Your task to perform on an android device: change timer sound Image 0: 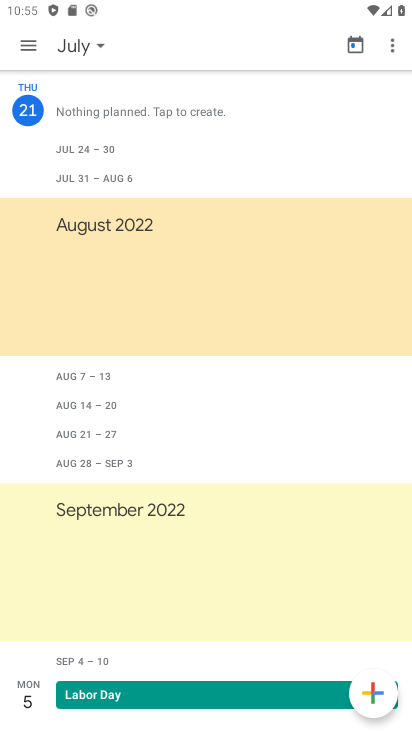
Step 0: press home button
Your task to perform on an android device: change timer sound Image 1: 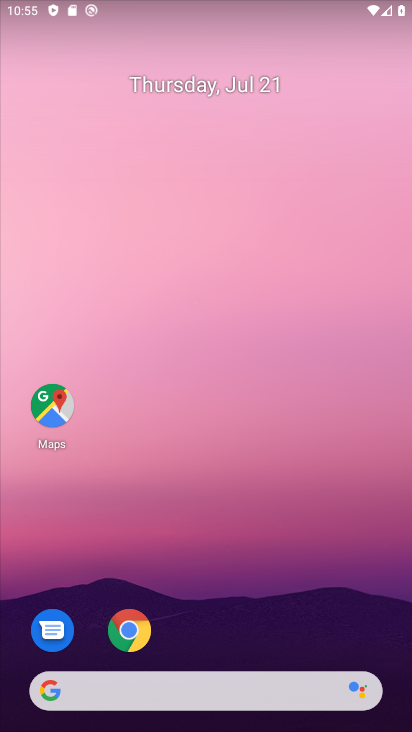
Step 1: drag from (221, 670) to (207, 241)
Your task to perform on an android device: change timer sound Image 2: 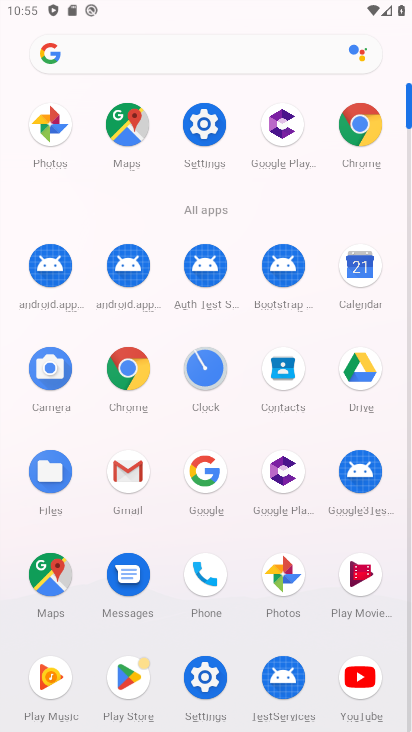
Step 2: click (202, 355)
Your task to perform on an android device: change timer sound Image 3: 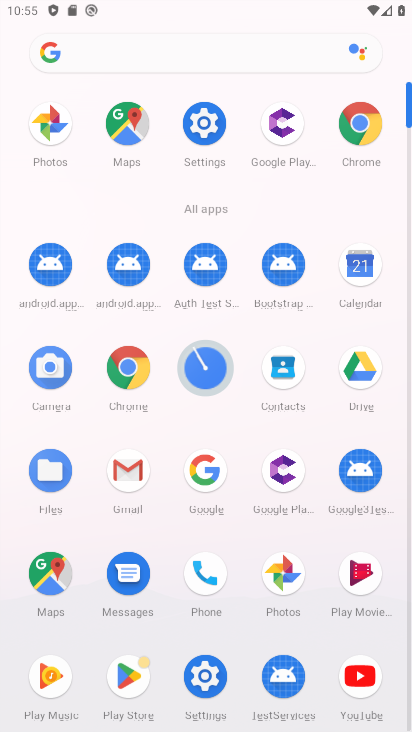
Step 3: click (202, 355)
Your task to perform on an android device: change timer sound Image 4: 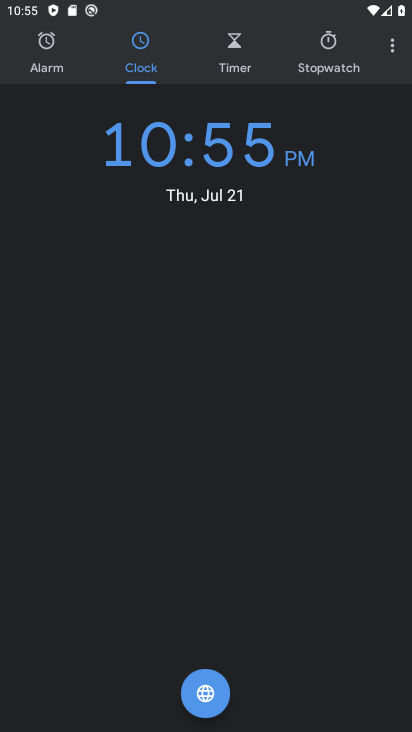
Step 4: click (392, 50)
Your task to perform on an android device: change timer sound Image 5: 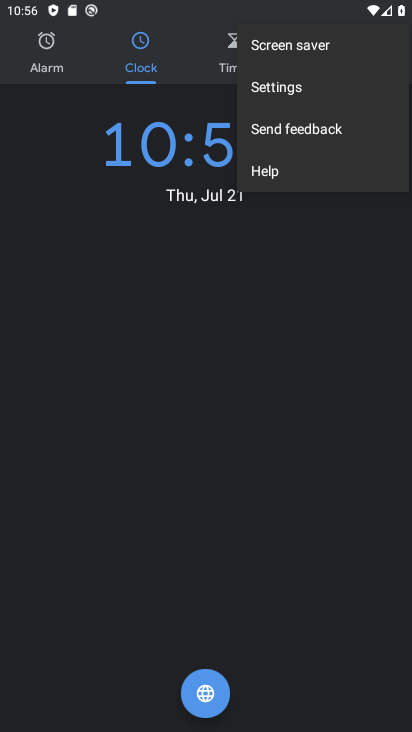
Step 5: click (283, 89)
Your task to perform on an android device: change timer sound Image 6: 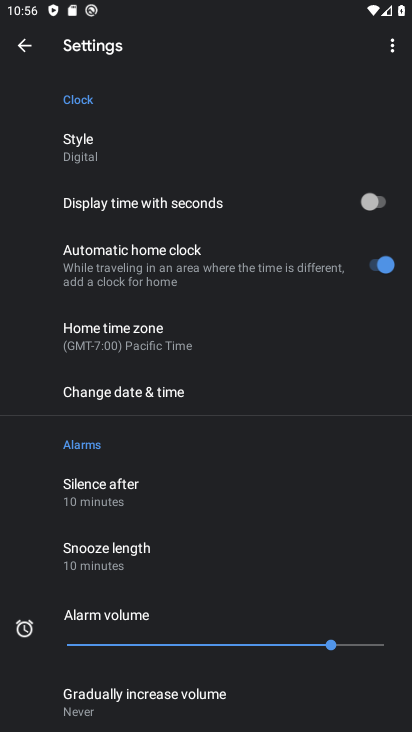
Step 6: drag from (108, 607) to (104, 364)
Your task to perform on an android device: change timer sound Image 7: 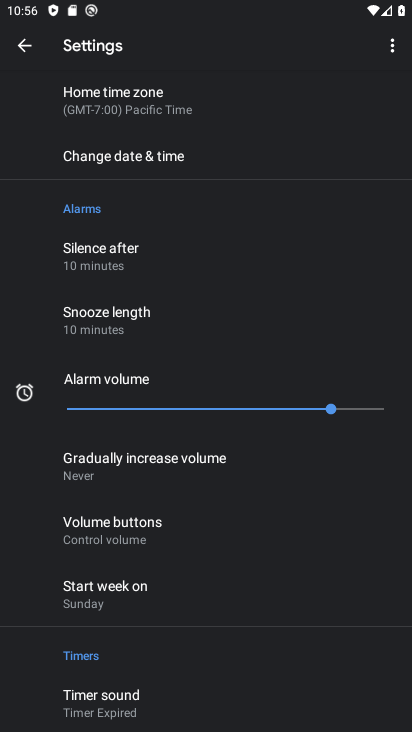
Step 7: click (114, 696)
Your task to perform on an android device: change timer sound Image 8: 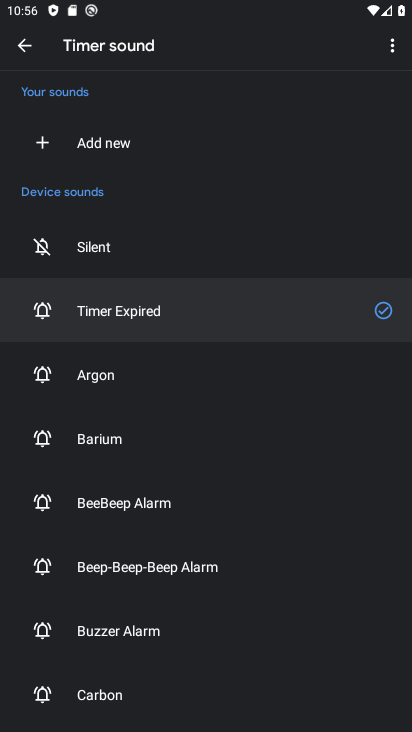
Step 8: click (117, 502)
Your task to perform on an android device: change timer sound Image 9: 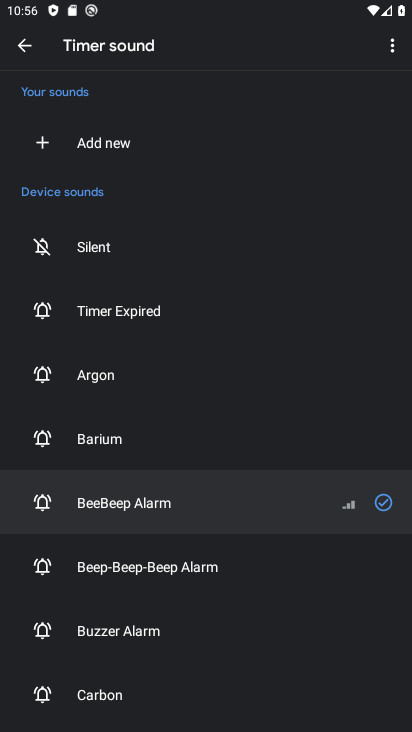
Step 9: task complete